Your task to perform on an android device: Show me popular videos on Youtube Image 0: 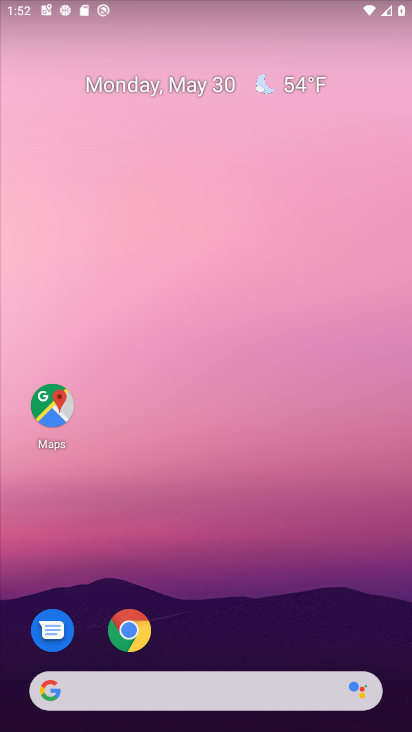
Step 0: press home button
Your task to perform on an android device: Show me popular videos on Youtube Image 1: 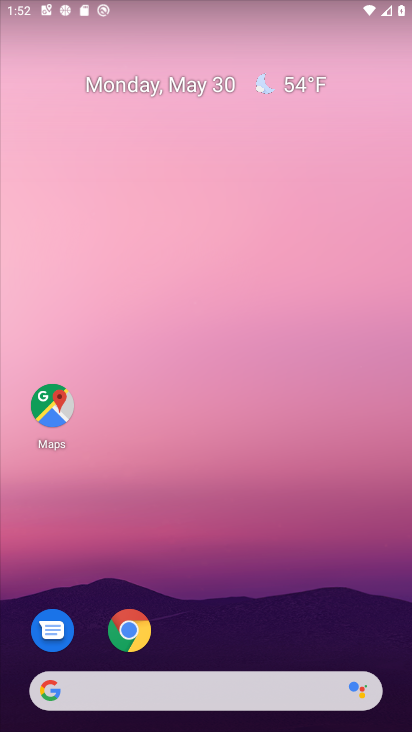
Step 1: drag from (153, 703) to (319, 136)
Your task to perform on an android device: Show me popular videos on Youtube Image 2: 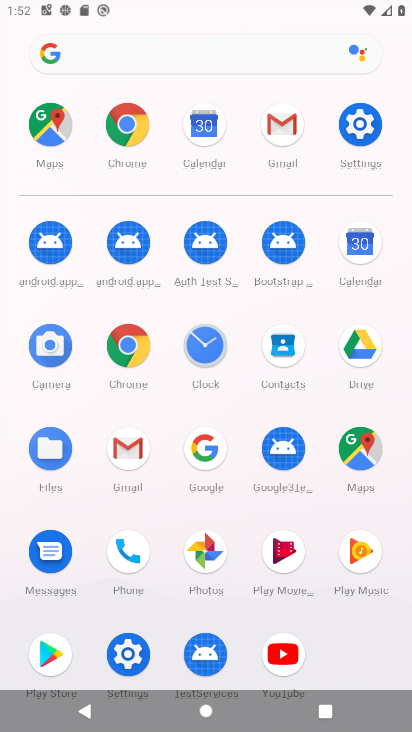
Step 2: click (289, 654)
Your task to perform on an android device: Show me popular videos on Youtube Image 3: 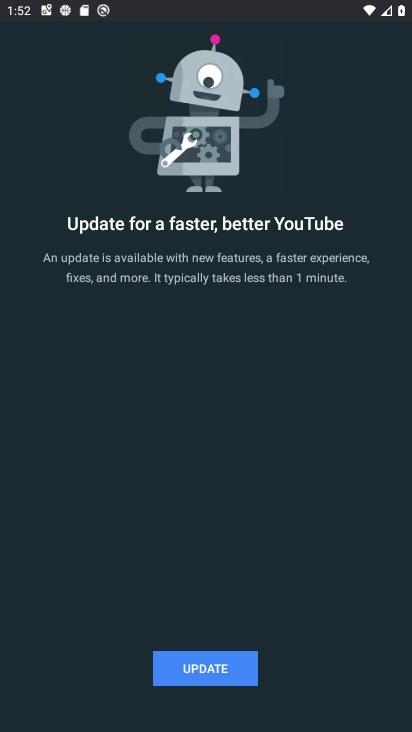
Step 3: click (190, 682)
Your task to perform on an android device: Show me popular videos on Youtube Image 4: 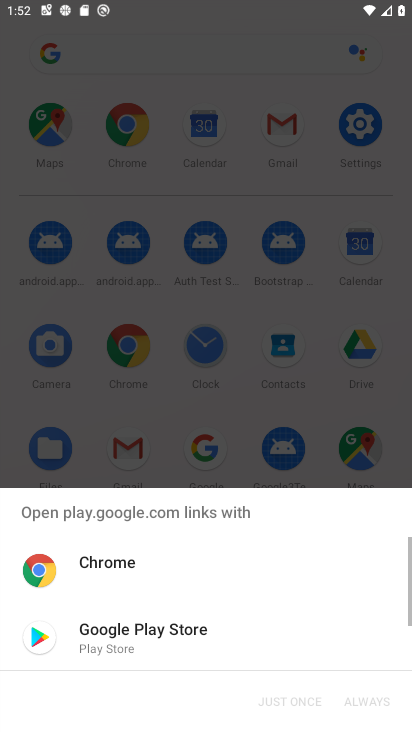
Step 4: click (104, 625)
Your task to perform on an android device: Show me popular videos on Youtube Image 5: 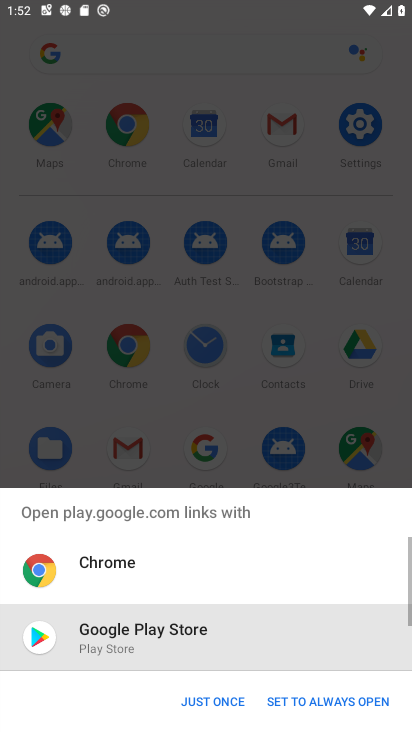
Step 5: click (200, 698)
Your task to perform on an android device: Show me popular videos on Youtube Image 6: 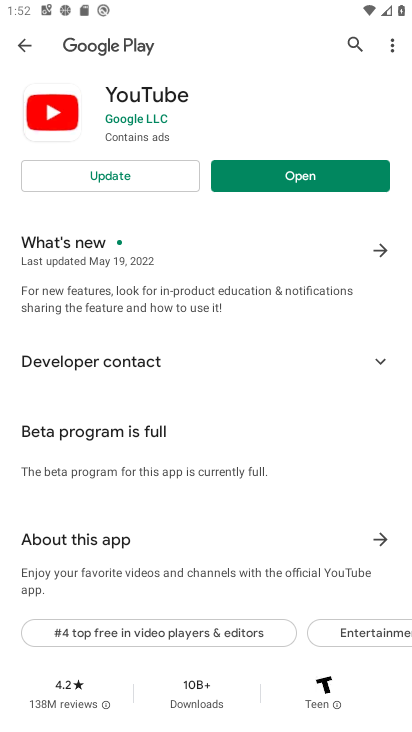
Step 6: click (165, 174)
Your task to perform on an android device: Show me popular videos on Youtube Image 7: 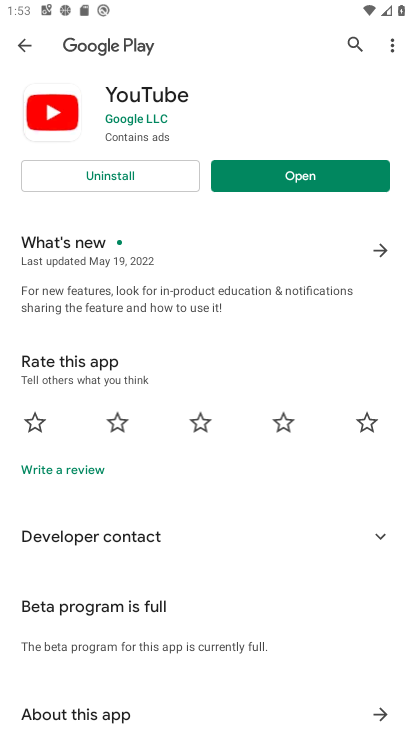
Step 7: click (297, 173)
Your task to perform on an android device: Show me popular videos on Youtube Image 8: 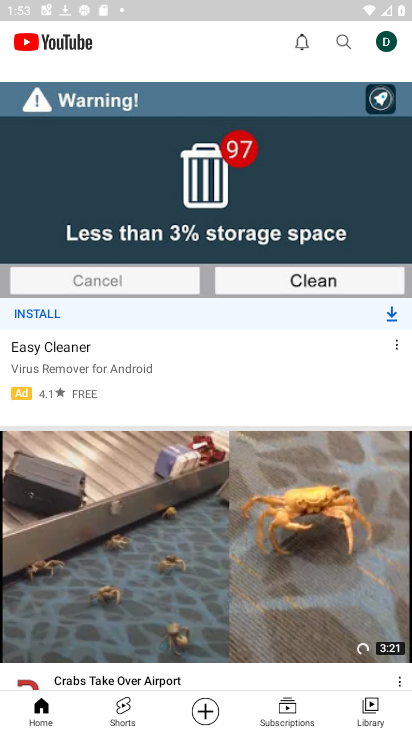
Step 8: task complete